Your task to perform on an android device: Show me recent news Image 0: 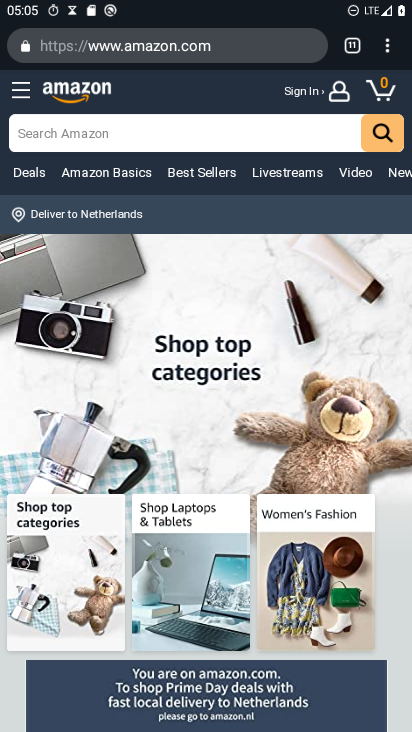
Step 0: press home button
Your task to perform on an android device: Show me recent news Image 1: 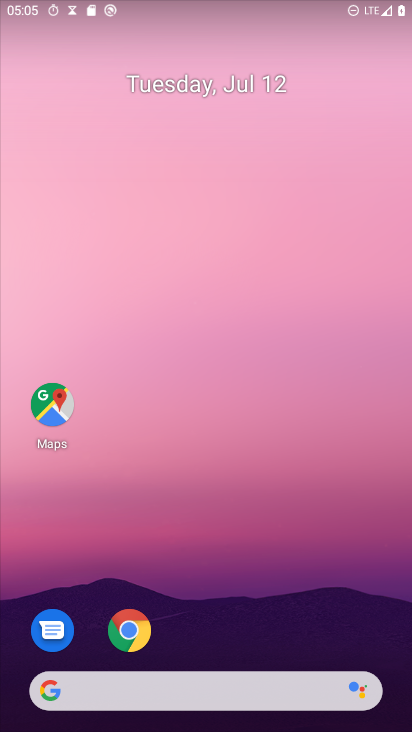
Step 1: drag from (217, 677) to (270, 39)
Your task to perform on an android device: Show me recent news Image 2: 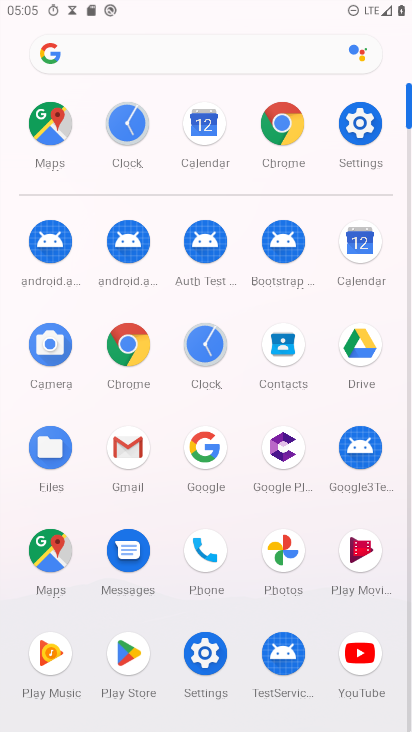
Step 2: click (125, 344)
Your task to perform on an android device: Show me recent news Image 3: 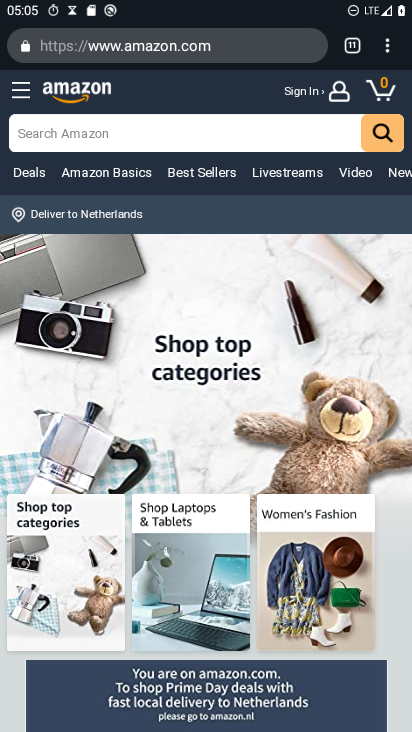
Step 3: click (212, 42)
Your task to perform on an android device: Show me recent news Image 4: 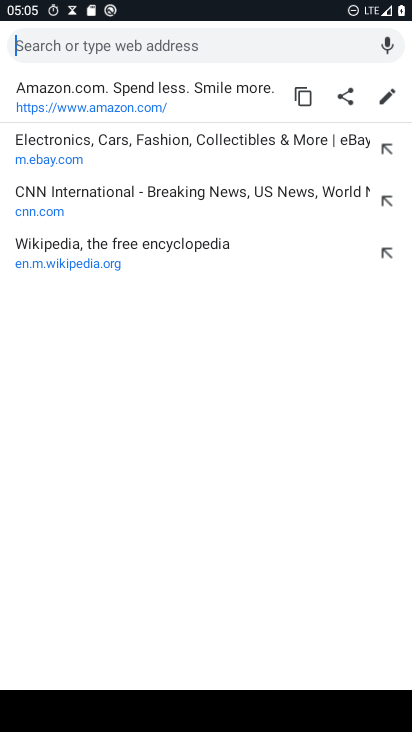
Step 4: type "recent news"
Your task to perform on an android device: Show me recent news Image 5: 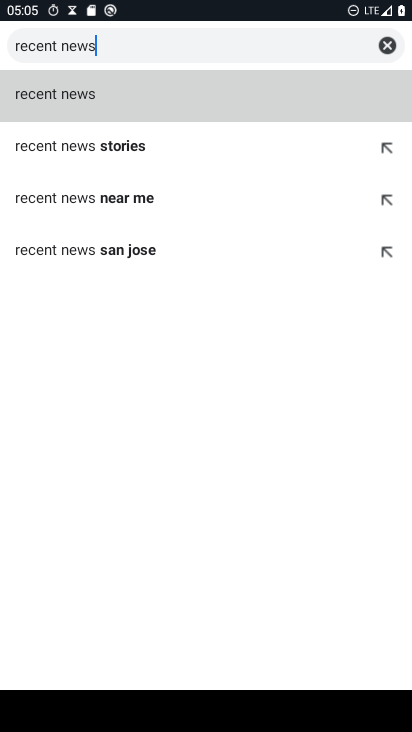
Step 5: click (68, 92)
Your task to perform on an android device: Show me recent news Image 6: 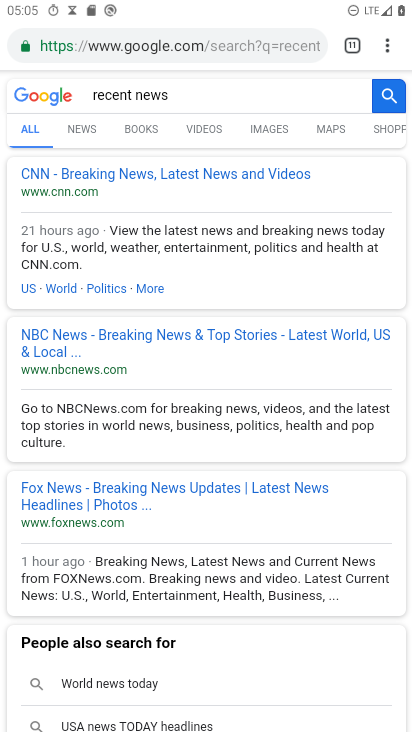
Step 6: task complete